Your task to perform on an android device: add a label to a message in the gmail app Image 0: 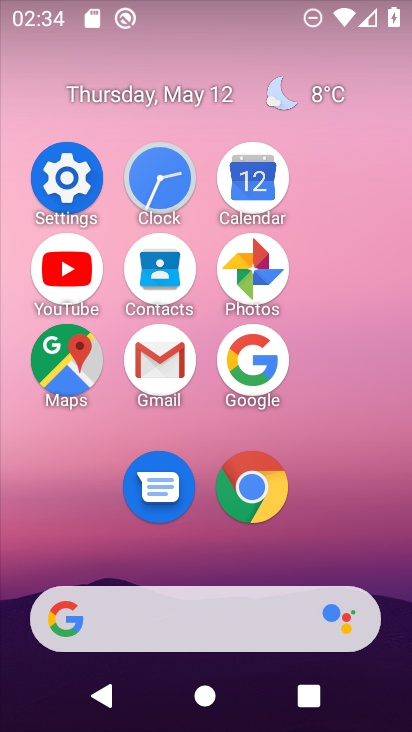
Step 0: click (170, 377)
Your task to perform on an android device: add a label to a message in the gmail app Image 1: 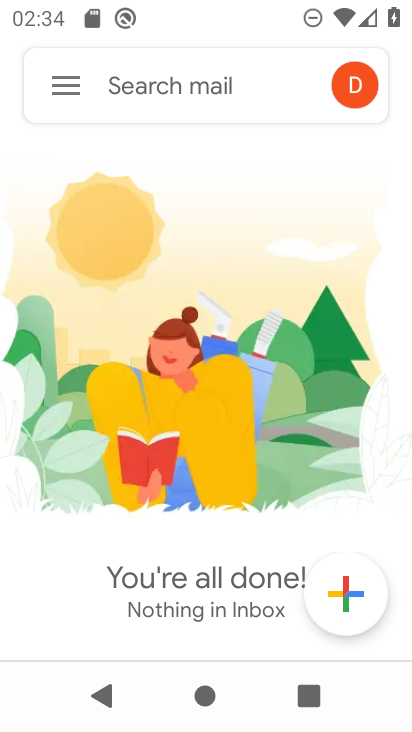
Step 1: click (62, 93)
Your task to perform on an android device: add a label to a message in the gmail app Image 2: 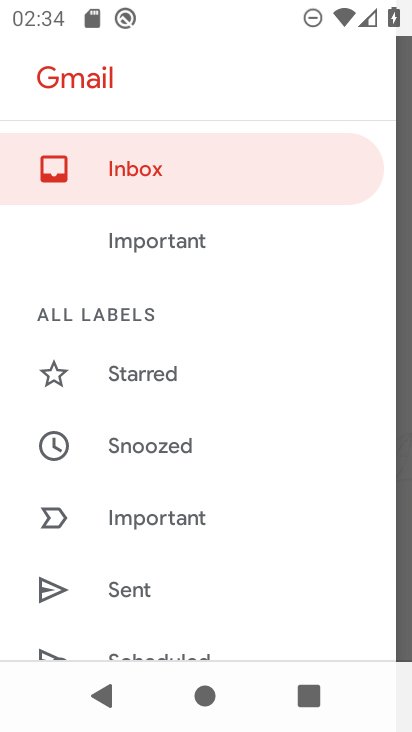
Step 2: drag from (204, 626) to (231, 278)
Your task to perform on an android device: add a label to a message in the gmail app Image 3: 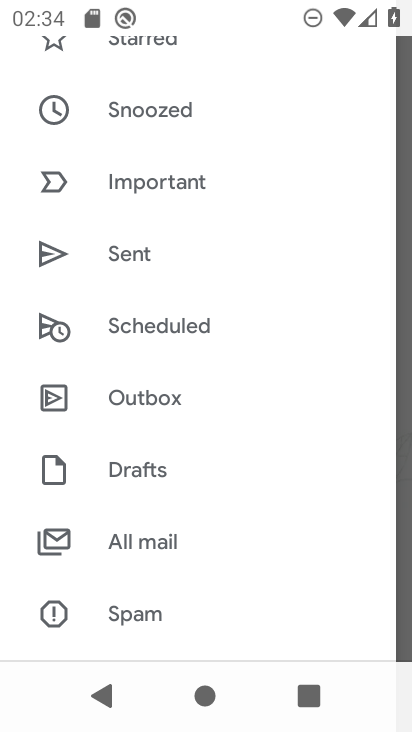
Step 3: click (191, 533)
Your task to perform on an android device: add a label to a message in the gmail app Image 4: 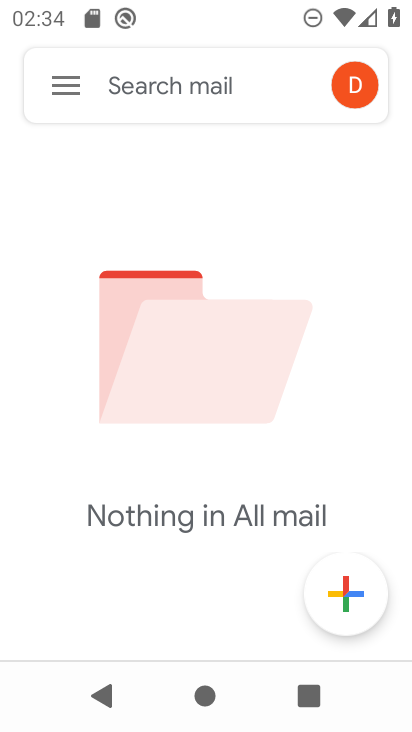
Step 4: task complete